Your task to perform on an android device: Open battery settings Image 0: 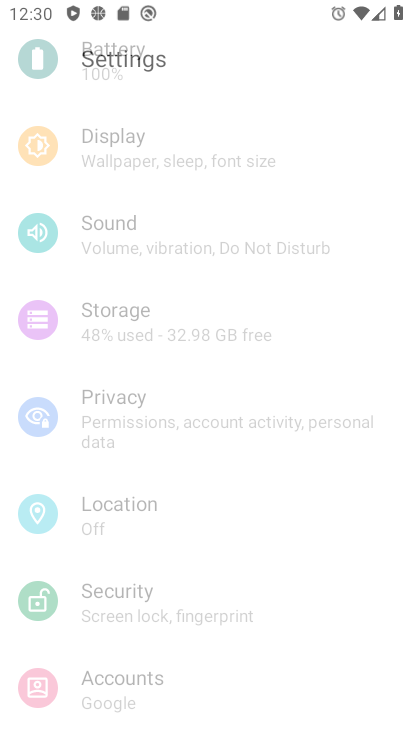
Step 0: drag from (300, 487) to (334, 139)
Your task to perform on an android device: Open battery settings Image 1: 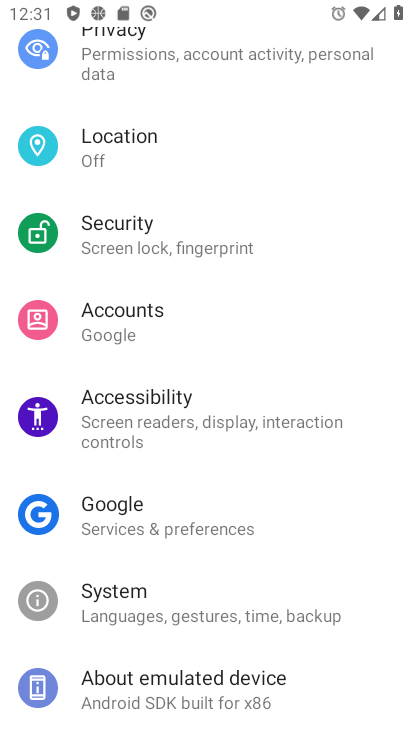
Step 1: drag from (272, 198) to (220, 692)
Your task to perform on an android device: Open battery settings Image 2: 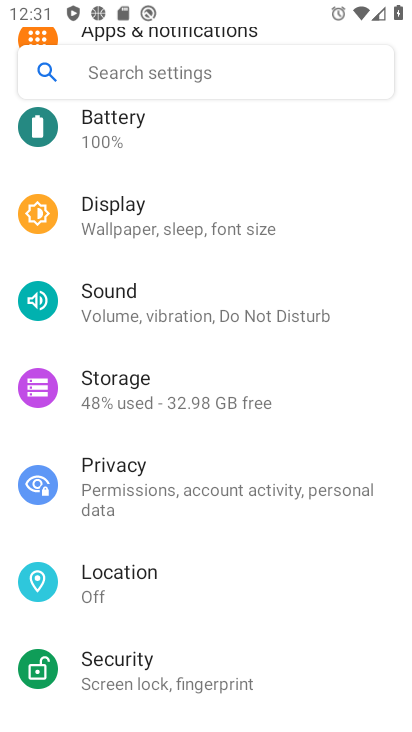
Step 2: click (140, 140)
Your task to perform on an android device: Open battery settings Image 3: 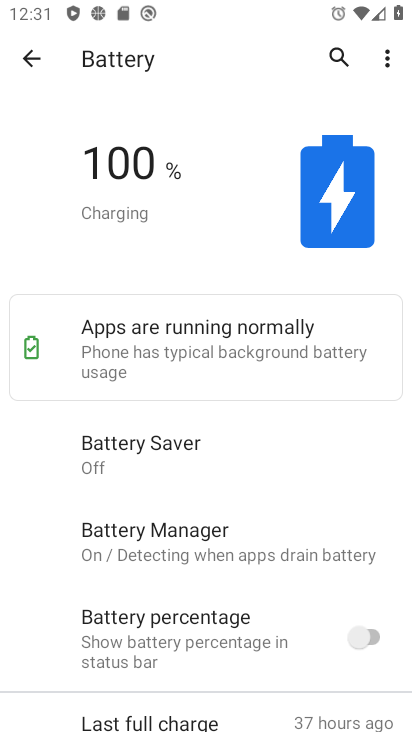
Step 3: task complete